Your task to perform on an android device: Go to Maps Image 0: 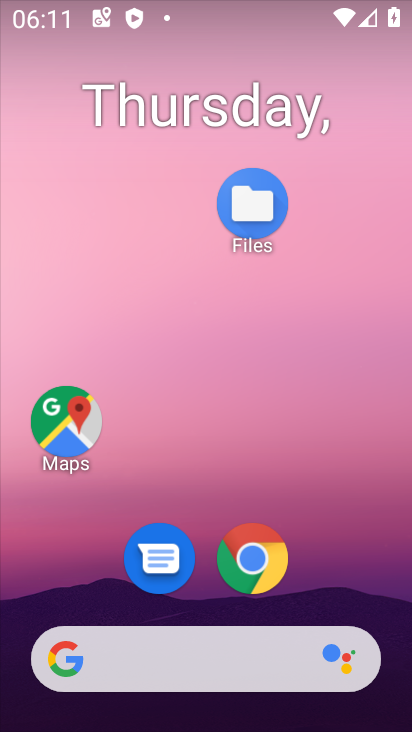
Step 0: click (324, 139)
Your task to perform on an android device: Go to Maps Image 1: 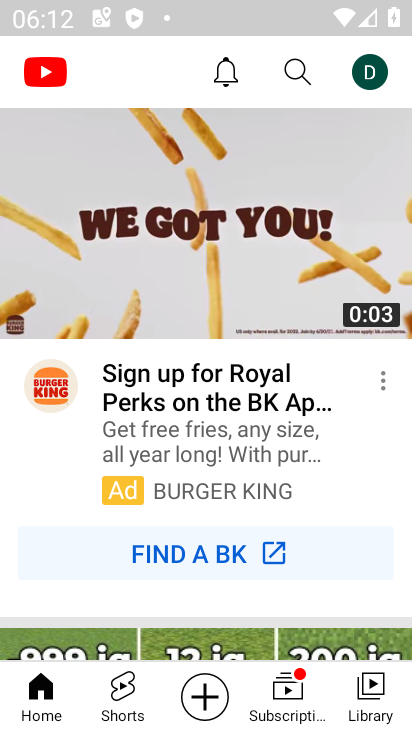
Step 1: press home button
Your task to perform on an android device: Go to Maps Image 2: 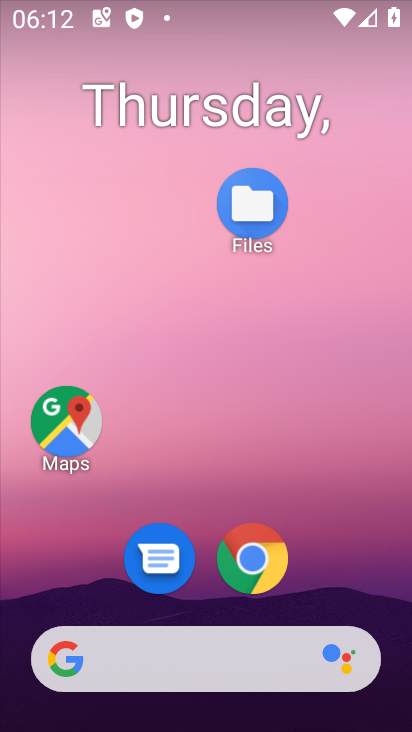
Step 2: click (66, 435)
Your task to perform on an android device: Go to Maps Image 3: 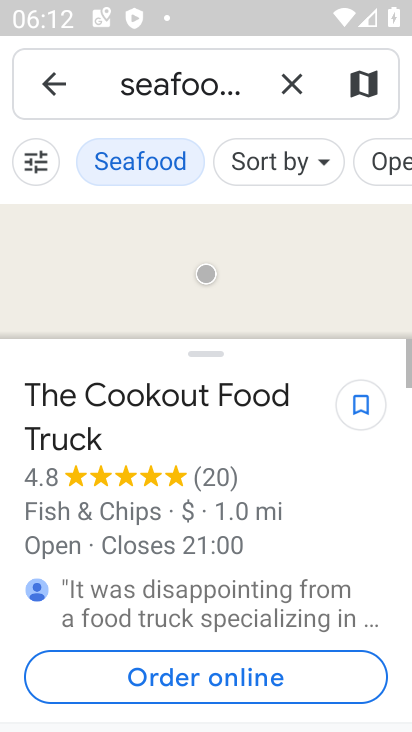
Step 3: task complete